Your task to perform on an android device: turn on notifications settings in the gmail app Image 0: 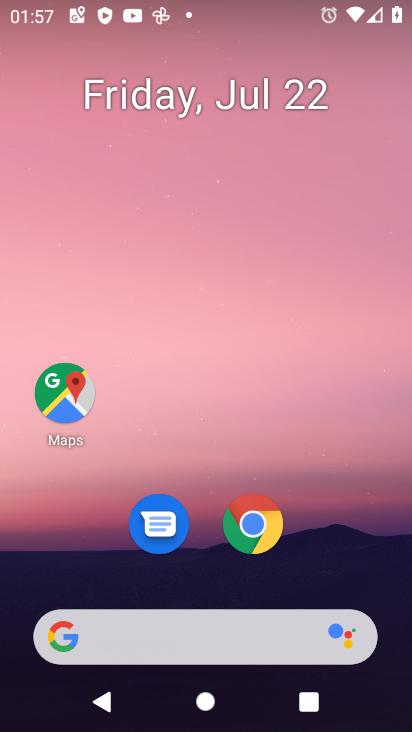
Step 0: press home button
Your task to perform on an android device: turn on notifications settings in the gmail app Image 1: 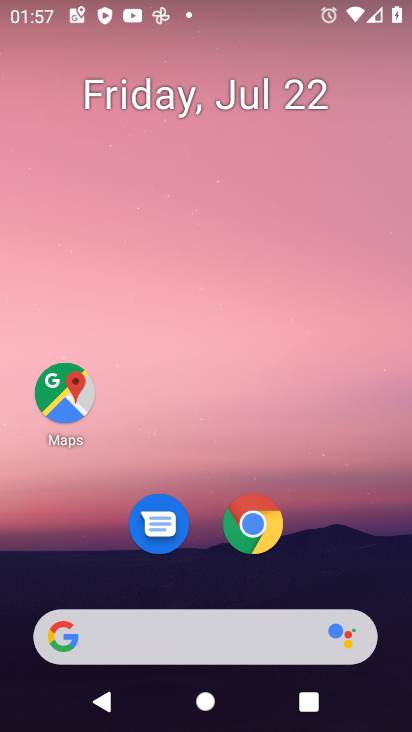
Step 1: drag from (199, 622) to (299, 265)
Your task to perform on an android device: turn on notifications settings in the gmail app Image 2: 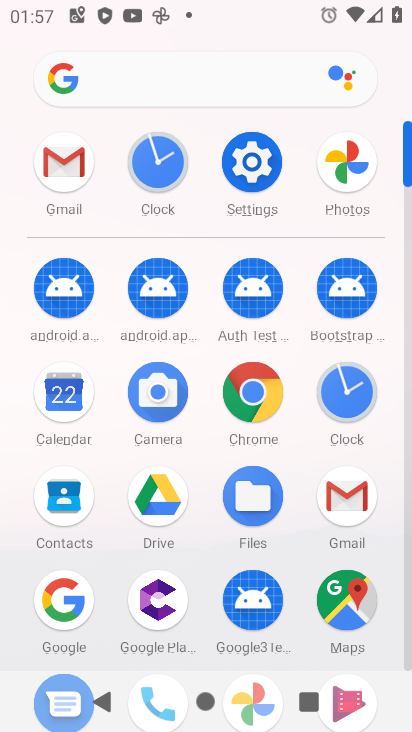
Step 2: click (339, 500)
Your task to perform on an android device: turn on notifications settings in the gmail app Image 3: 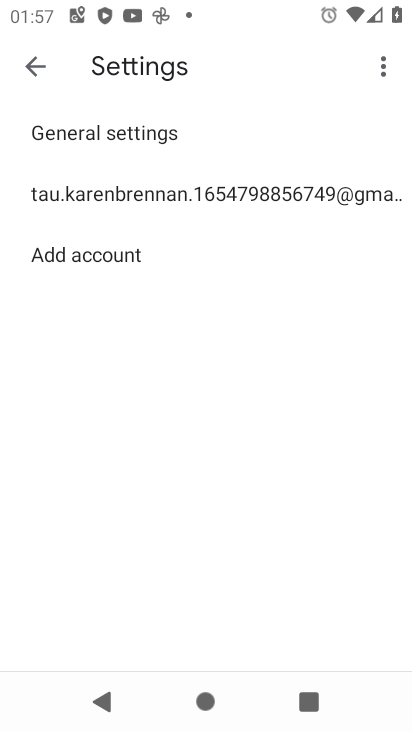
Step 3: click (285, 191)
Your task to perform on an android device: turn on notifications settings in the gmail app Image 4: 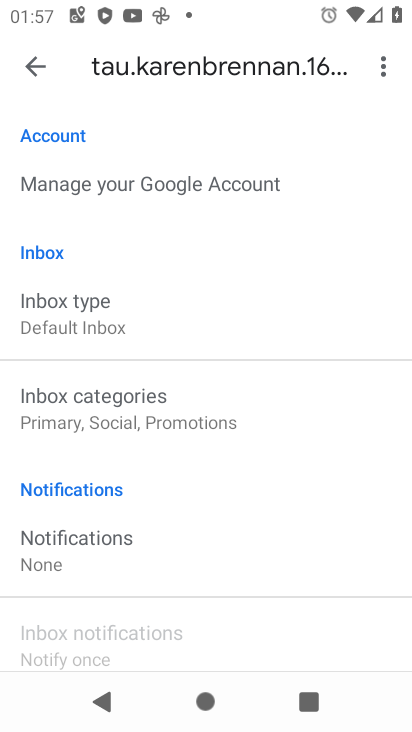
Step 4: click (63, 545)
Your task to perform on an android device: turn on notifications settings in the gmail app Image 5: 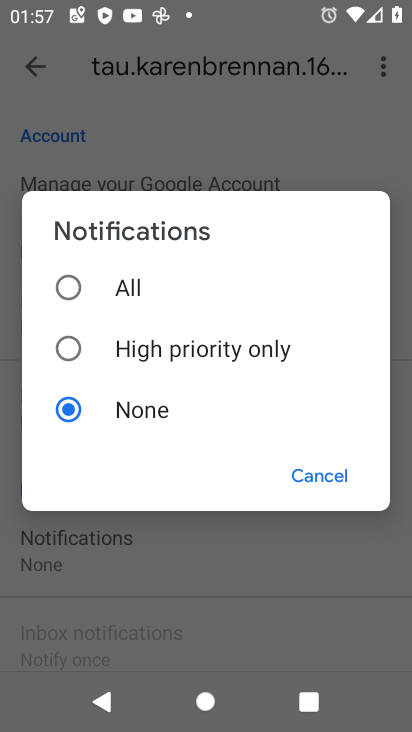
Step 5: click (72, 291)
Your task to perform on an android device: turn on notifications settings in the gmail app Image 6: 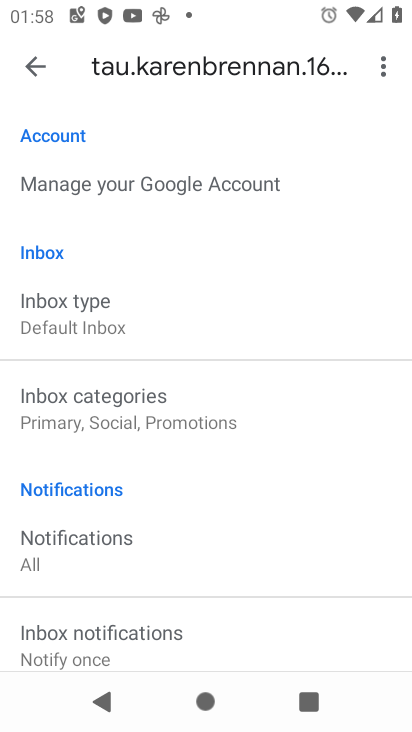
Step 6: task complete